Your task to perform on an android device: turn on the 24-hour format for clock Image 0: 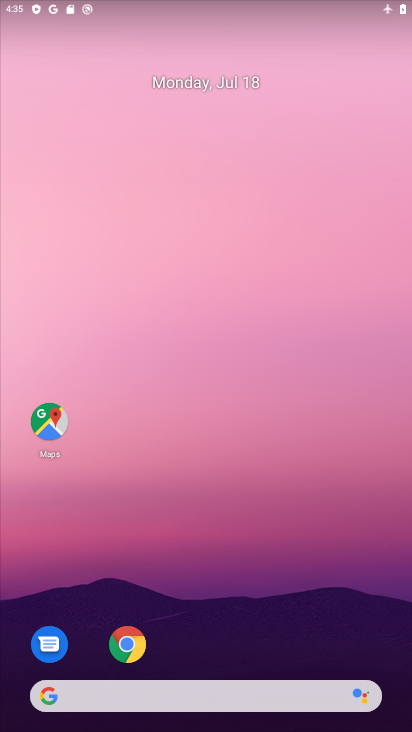
Step 0: press home button
Your task to perform on an android device: turn on the 24-hour format for clock Image 1: 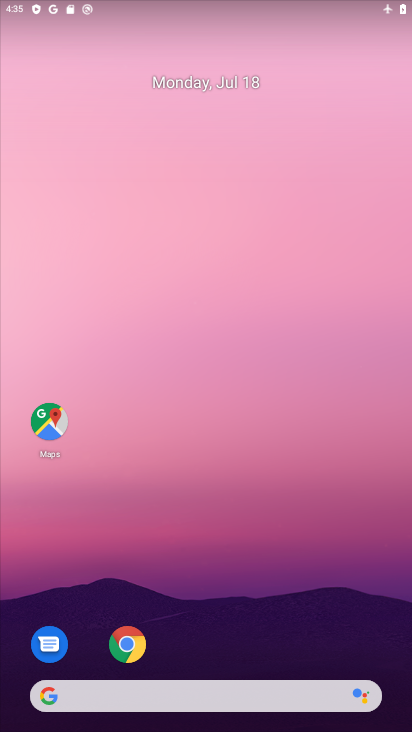
Step 1: drag from (295, 648) to (327, 109)
Your task to perform on an android device: turn on the 24-hour format for clock Image 2: 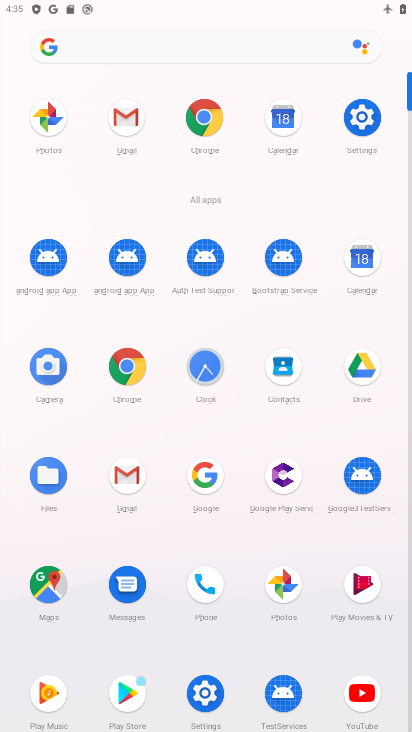
Step 2: click (360, 121)
Your task to perform on an android device: turn on the 24-hour format for clock Image 3: 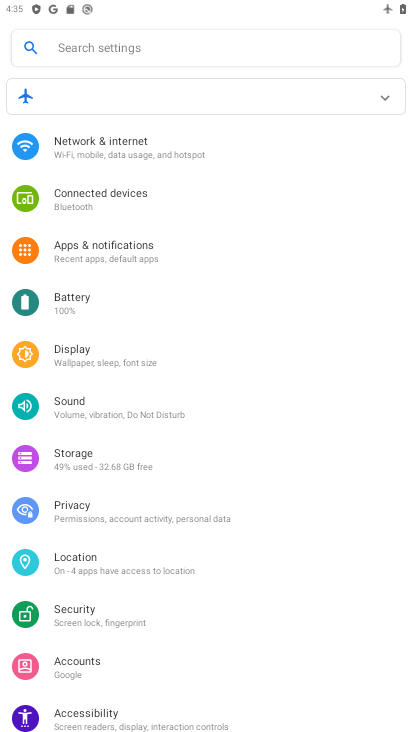
Step 3: drag from (283, 650) to (321, 4)
Your task to perform on an android device: turn on the 24-hour format for clock Image 4: 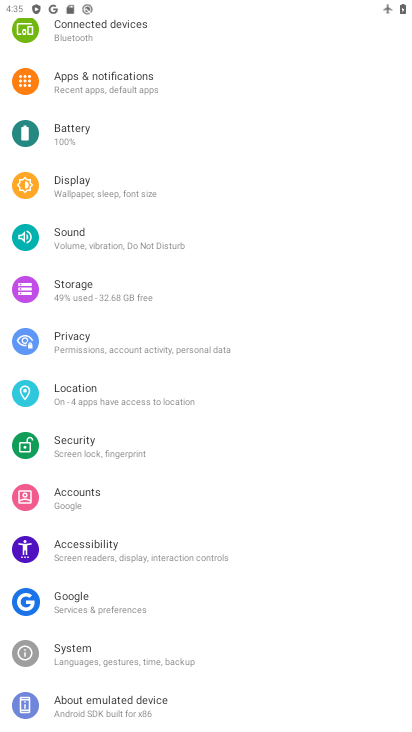
Step 4: drag from (300, 661) to (333, 97)
Your task to perform on an android device: turn on the 24-hour format for clock Image 5: 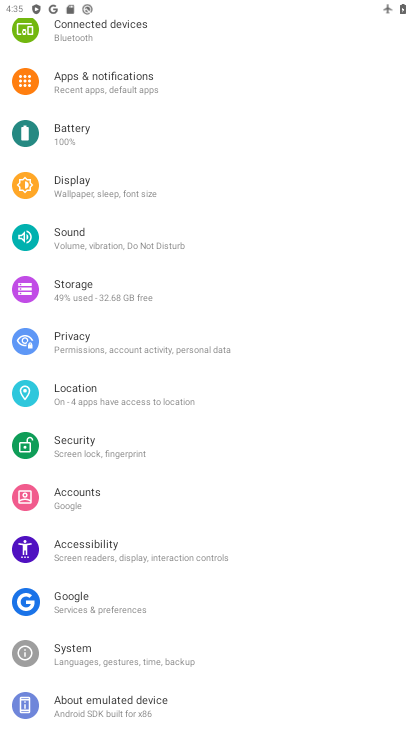
Step 5: click (58, 654)
Your task to perform on an android device: turn on the 24-hour format for clock Image 6: 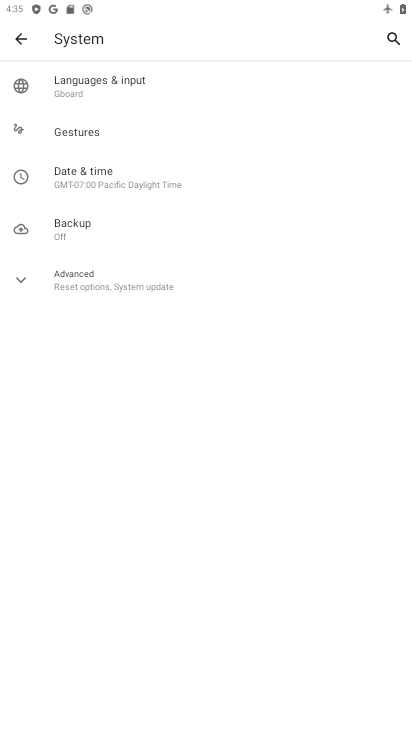
Step 6: click (86, 176)
Your task to perform on an android device: turn on the 24-hour format for clock Image 7: 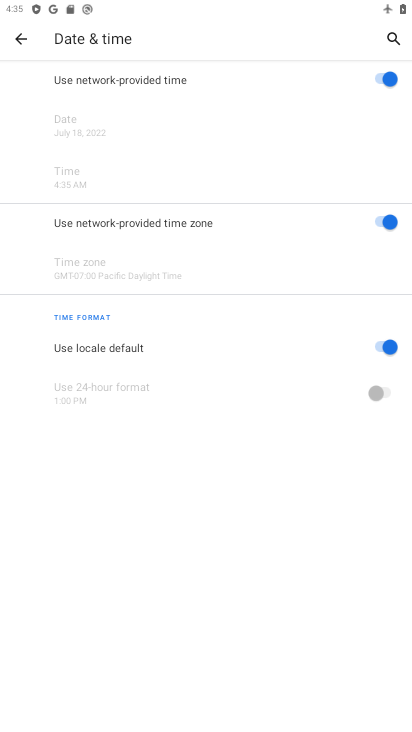
Step 7: click (394, 345)
Your task to perform on an android device: turn on the 24-hour format for clock Image 8: 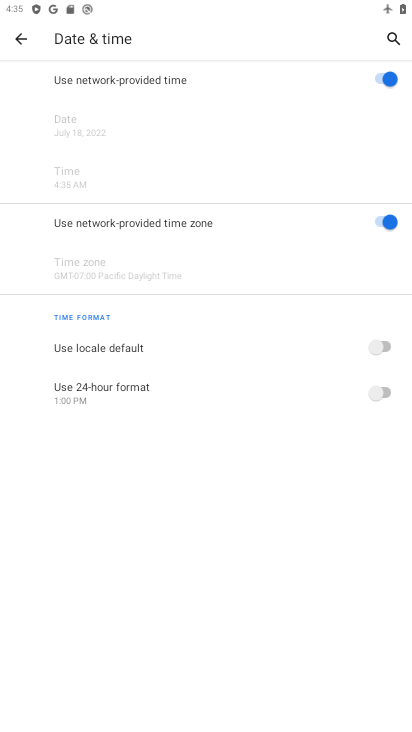
Step 8: click (381, 389)
Your task to perform on an android device: turn on the 24-hour format for clock Image 9: 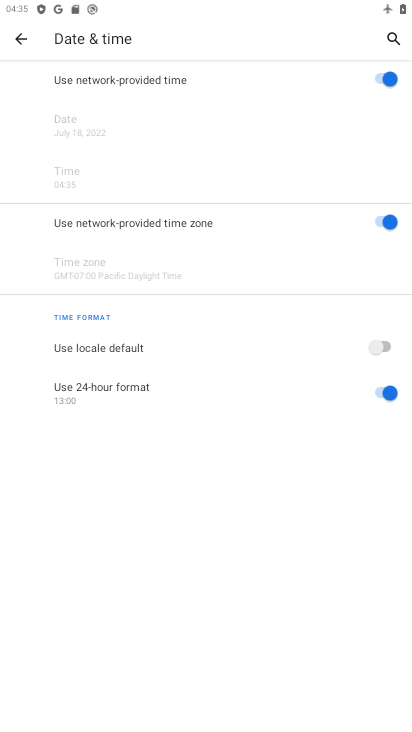
Step 9: task complete